Your task to perform on an android device: change your default location settings in chrome Image 0: 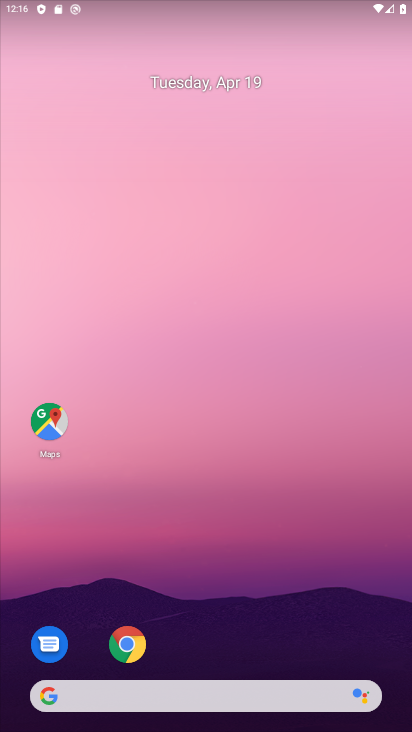
Step 0: click (230, 636)
Your task to perform on an android device: change your default location settings in chrome Image 1: 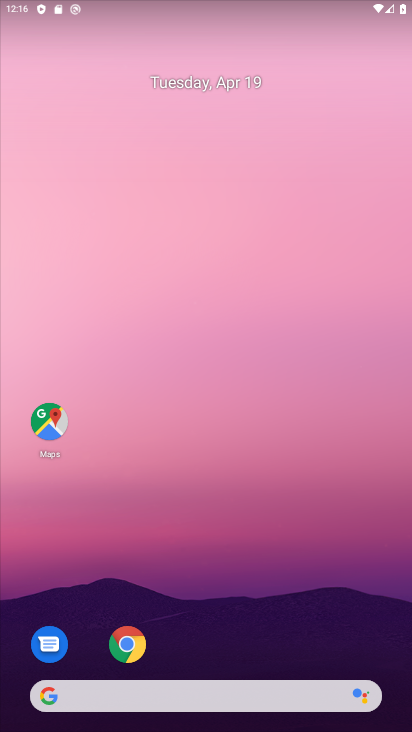
Step 1: drag from (230, 636) to (361, 215)
Your task to perform on an android device: change your default location settings in chrome Image 2: 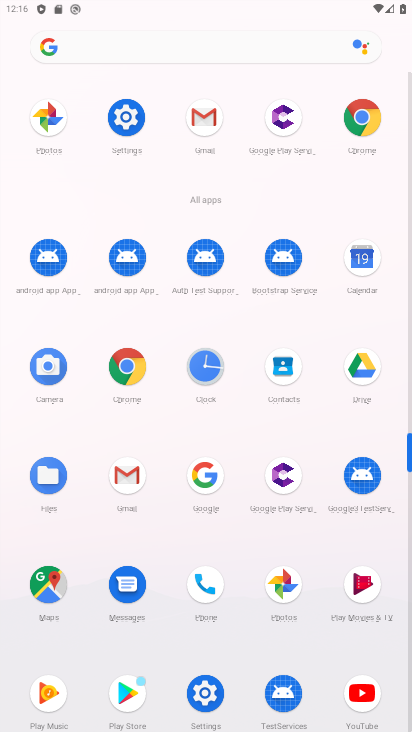
Step 2: click (369, 147)
Your task to perform on an android device: change your default location settings in chrome Image 3: 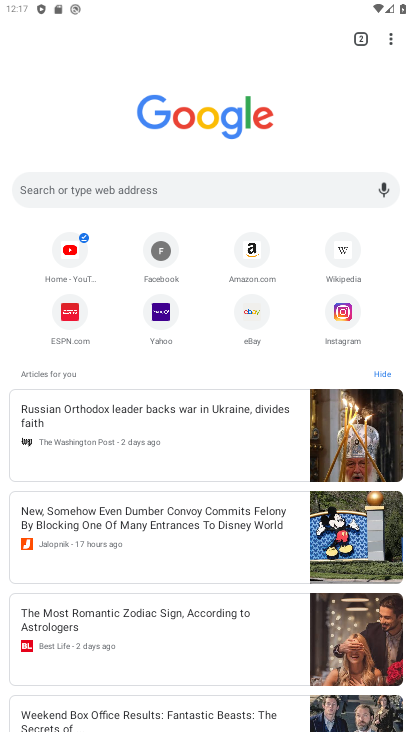
Step 3: click (385, 44)
Your task to perform on an android device: change your default location settings in chrome Image 4: 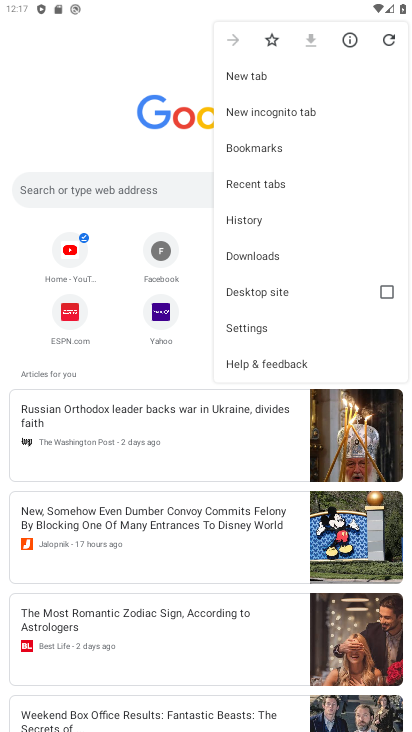
Step 4: click (271, 324)
Your task to perform on an android device: change your default location settings in chrome Image 5: 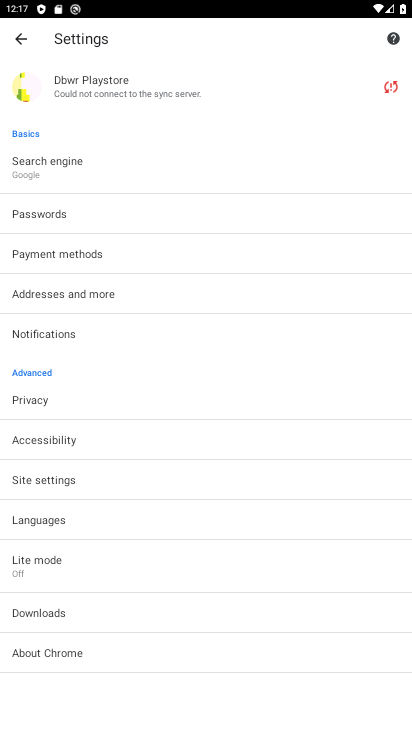
Step 5: click (100, 304)
Your task to perform on an android device: change your default location settings in chrome Image 6: 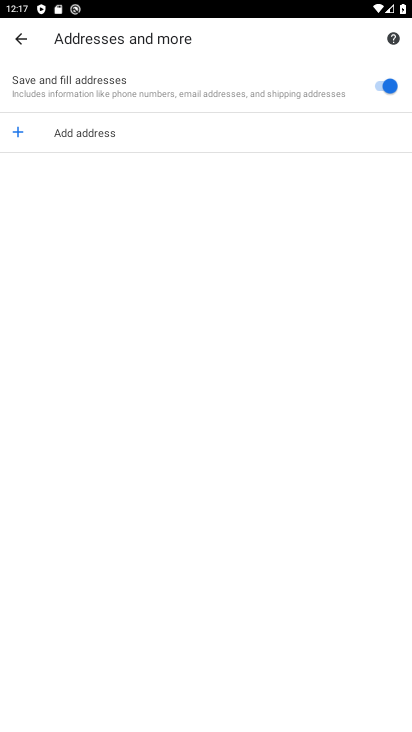
Step 6: task complete